Your task to perform on an android device: View the shopping cart on amazon.com. Add "macbook air" to the cart on amazon.com, then select checkout. Image 0: 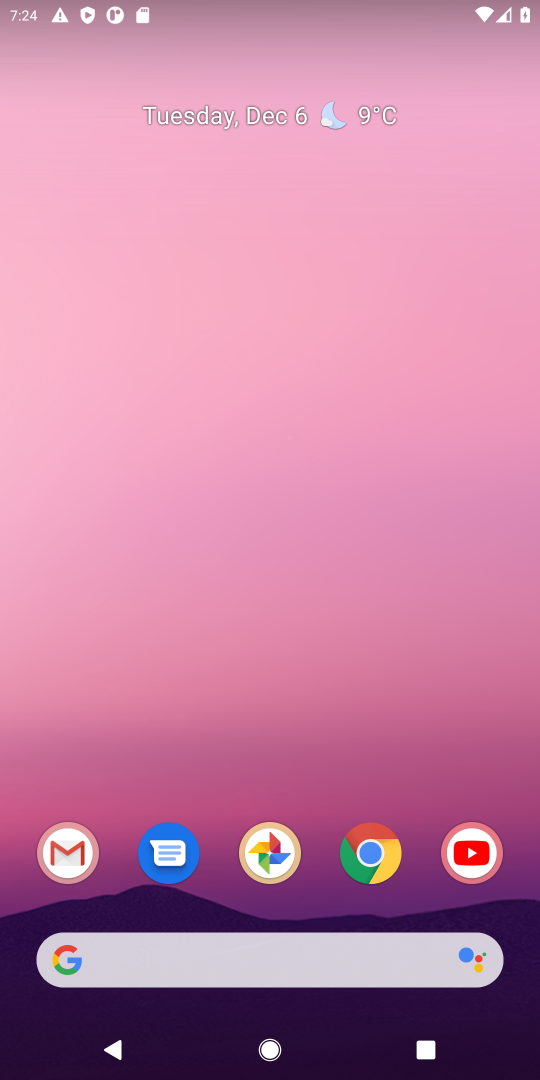
Step 0: click (374, 847)
Your task to perform on an android device: View the shopping cart on amazon.com. Add "macbook air" to the cart on amazon.com, then select checkout. Image 1: 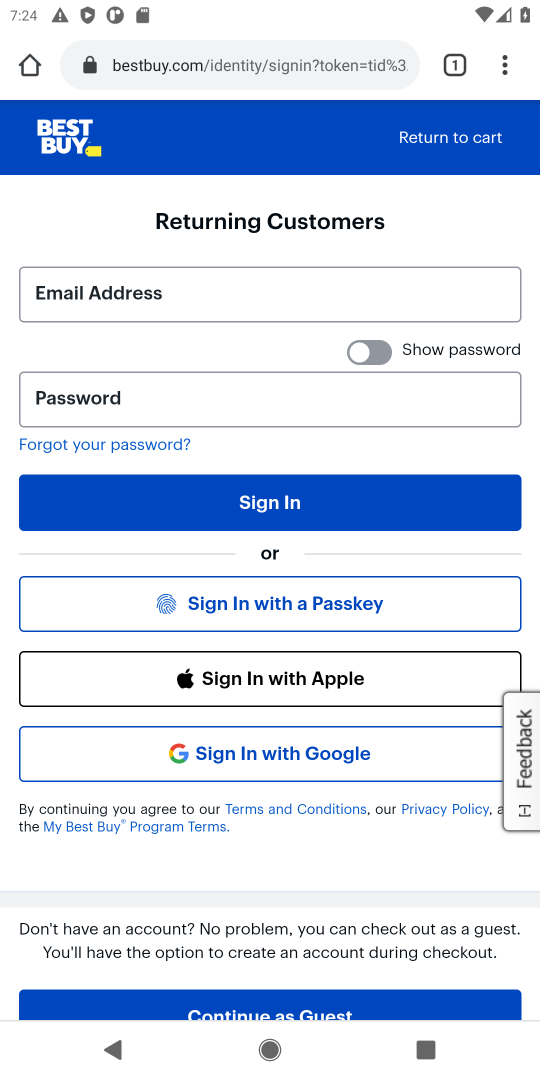
Step 1: click (261, 78)
Your task to perform on an android device: View the shopping cart on amazon.com. Add "macbook air" to the cart on amazon.com, then select checkout. Image 2: 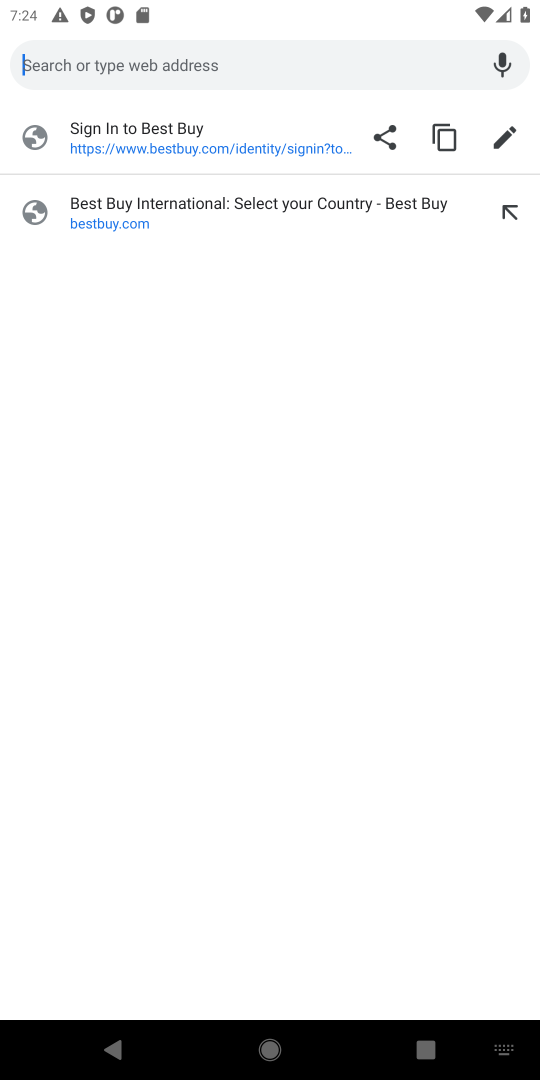
Step 2: click (245, 66)
Your task to perform on an android device: View the shopping cart on amazon.com. Add "macbook air" to the cart on amazon.com, then select checkout. Image 3: 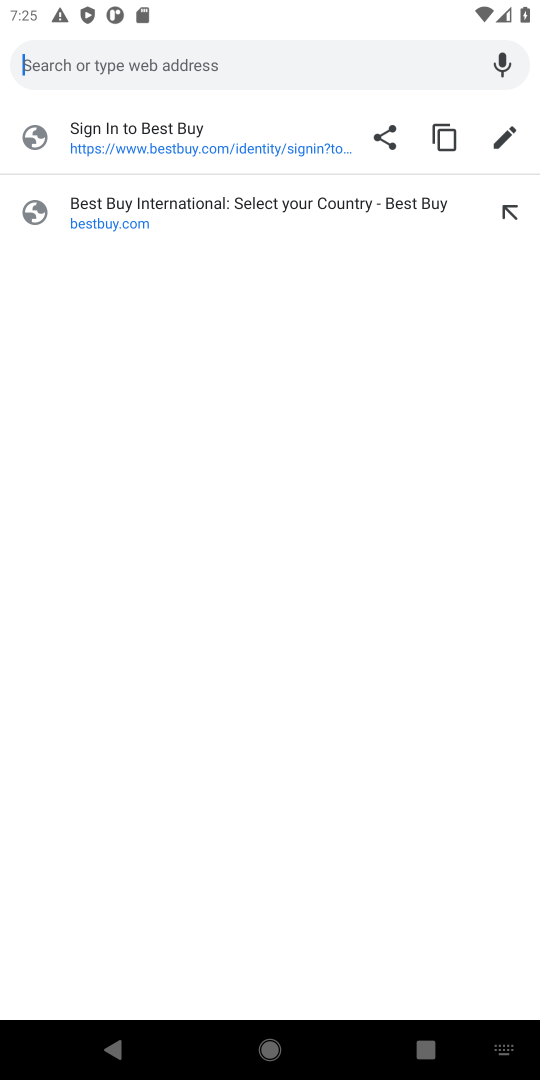
Step 3: type "amazon.cpm"
Your task to perform on an android device: View the shopping cart on amazon.com. Add "macbook air" to the cart on amazon.com, then select checkout. Image 4: 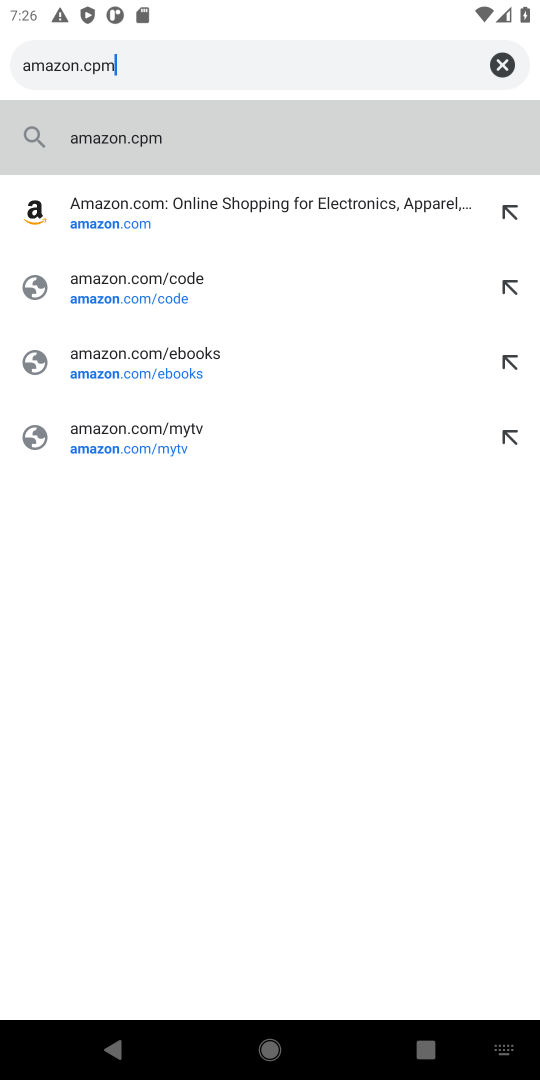
Step 4: click (199, 204)
Your task to perform on an android device: View the shopping cart on amazon.com. Add "macbook air" to the cart on amazon.com, then select checkout. Image 5: 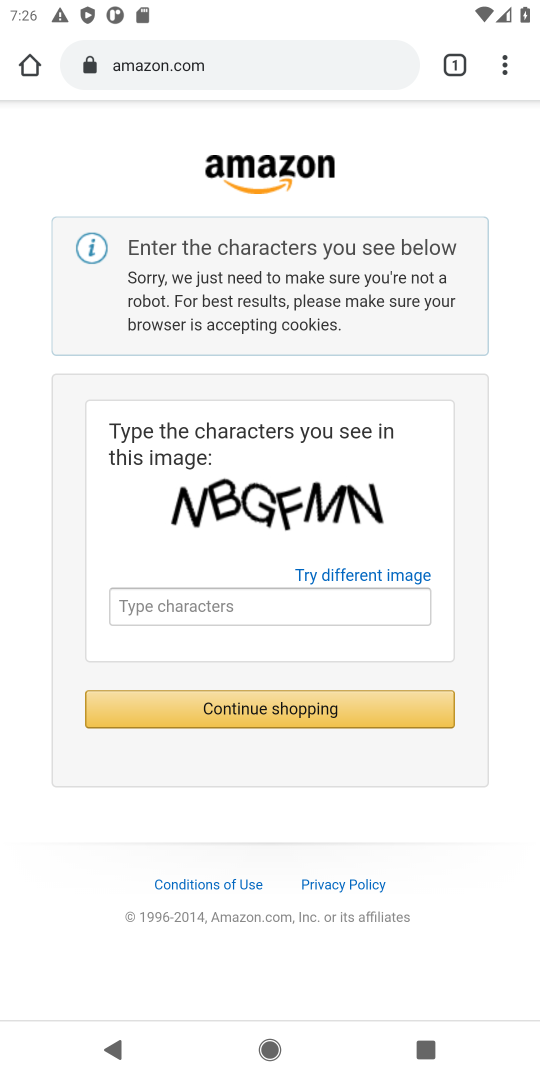
Step 5: click (266, 606)
Your task to perform on an android device: View the shopping cart on amazon.com. Add "macbook air" to the cart on amazon.com, then select checkout. Image 6: 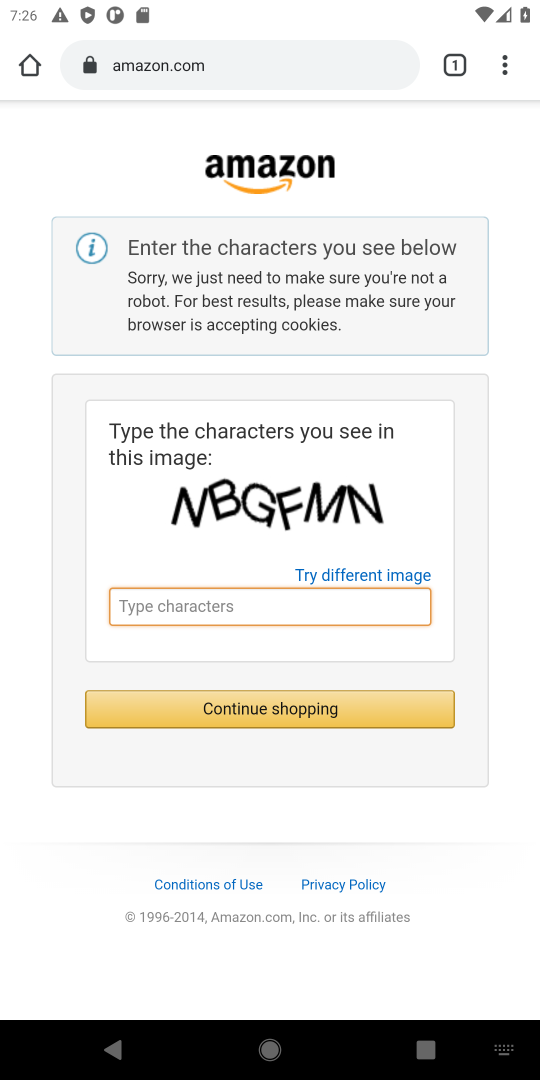
Step 6: click (230, 601)
Your task to perform on an android device: View the shopping cart on amazon.com. Add "macbook air" to the cart on amazon.com, then select checkout. Image 7: 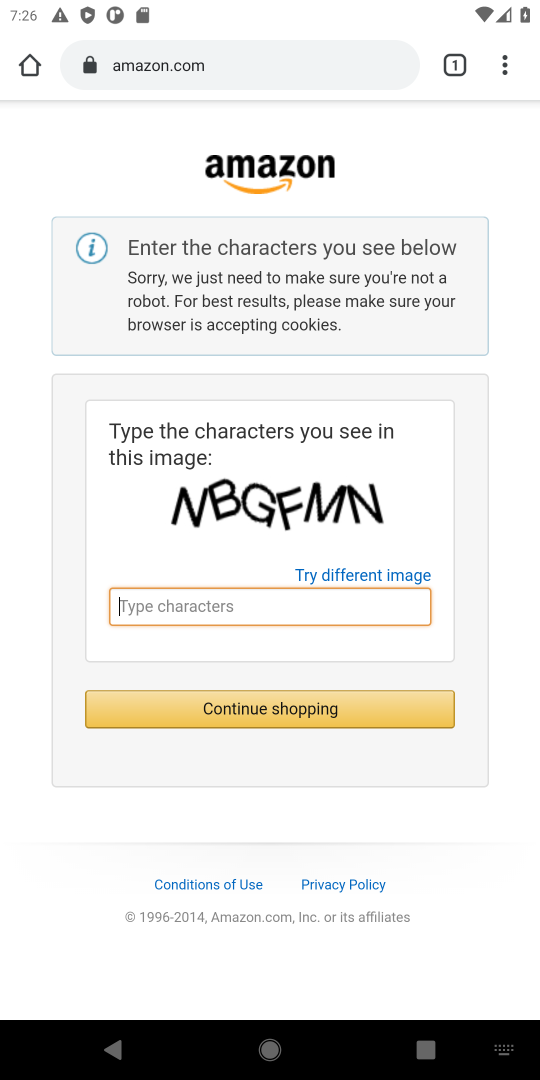
Step 7: click (230, 601)
Your task to perform on an android device: View the shopping cart on amazon.com. Add "macbook air" to the cart on amazon.com, then select checkout. Image 8: 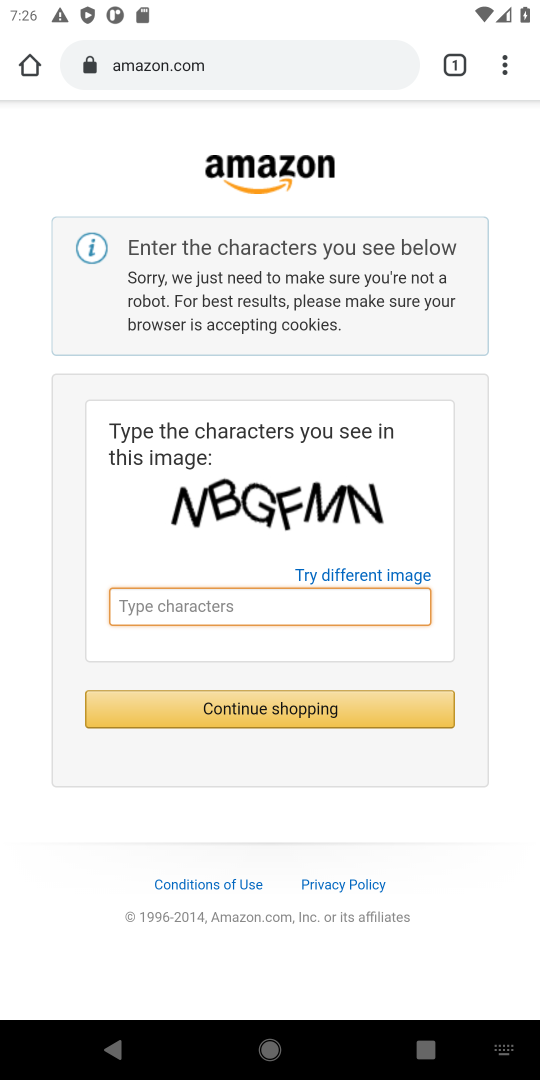
Step 8: type "NBGFMN"
Your task to perform on an android device: View the shopping cart on amazon.com. Add "macbook air" to the cart on amazon.com, then select checkout. Image 9: 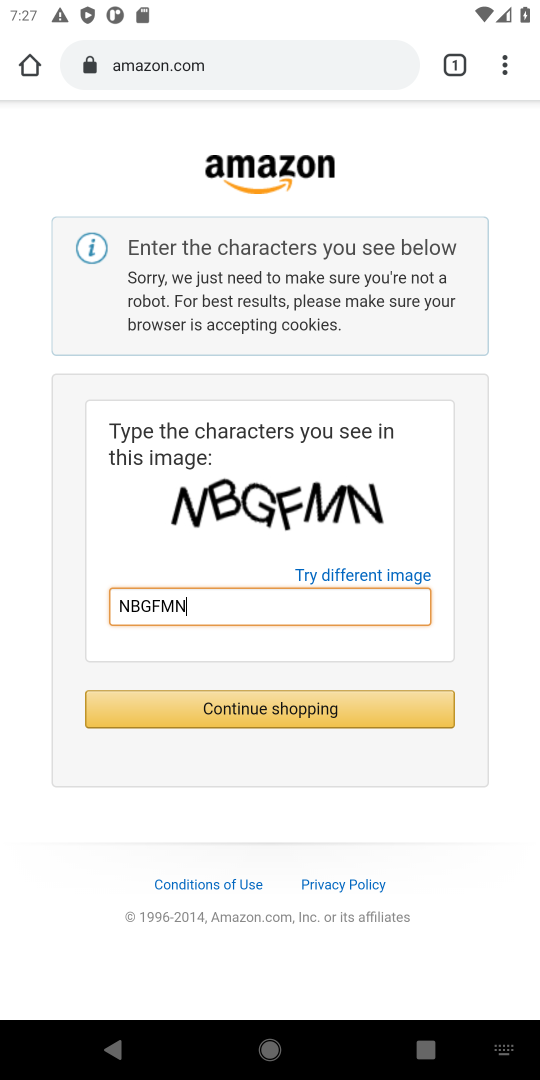
Step 9: click (314, 705)
Your task to perform on an android device: View the shopping cart on amazon.com. Add "macbook air" to the cart on amazon.com, then select checkout. Image 10: 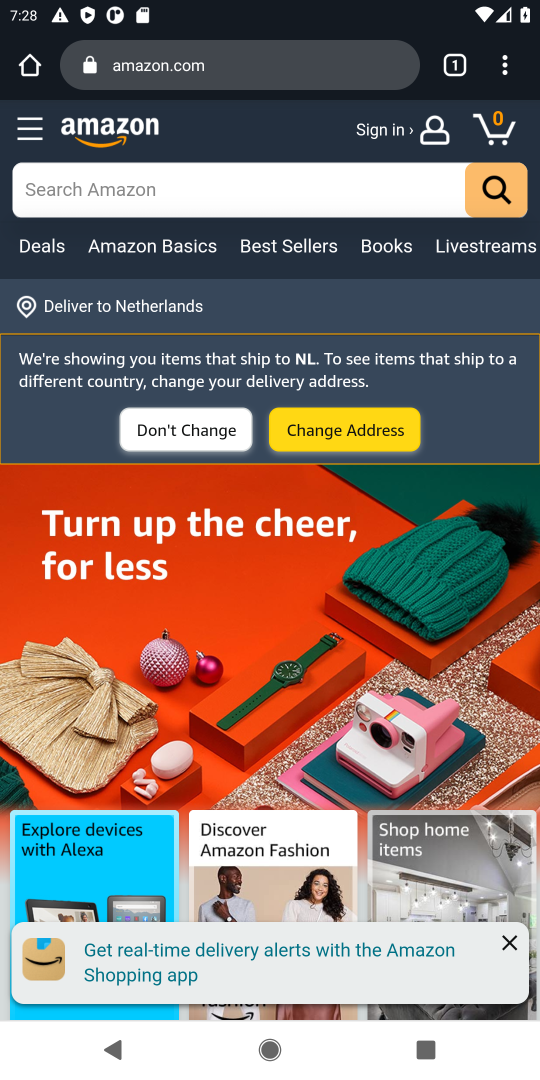
Step 10: click (343, 196)
Your task to perform on an android device: View the shopping cart on amazon.com. Add "macbook air" to the cart on amazon.com, then select checkout. Image 11: 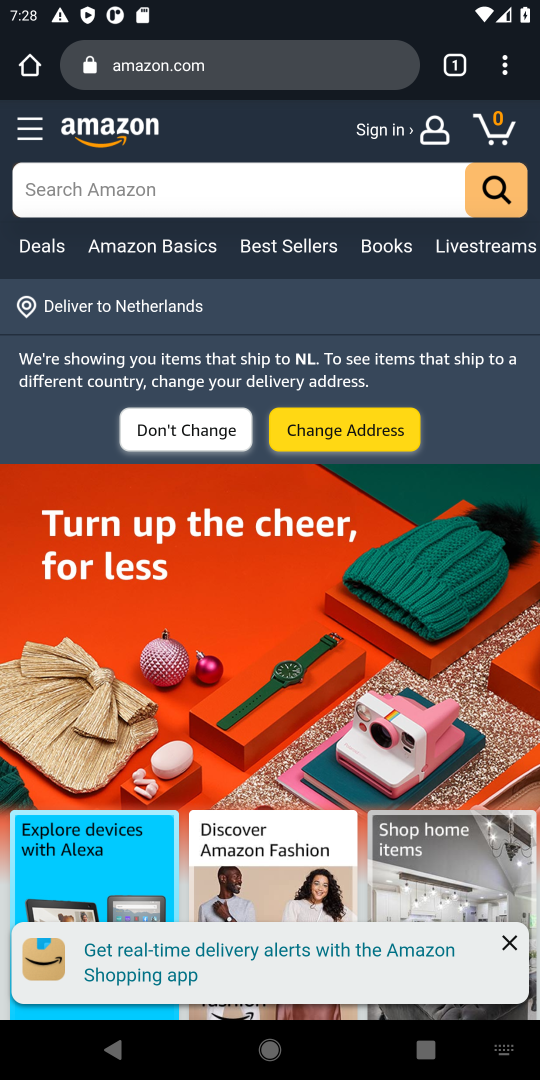
Step 11: type "macbook air"
Your task to perform on an android device: View the shopping cart on amazon.com. Add "macbook air" to the cart on amazon.com, then select checkout. Image 12: 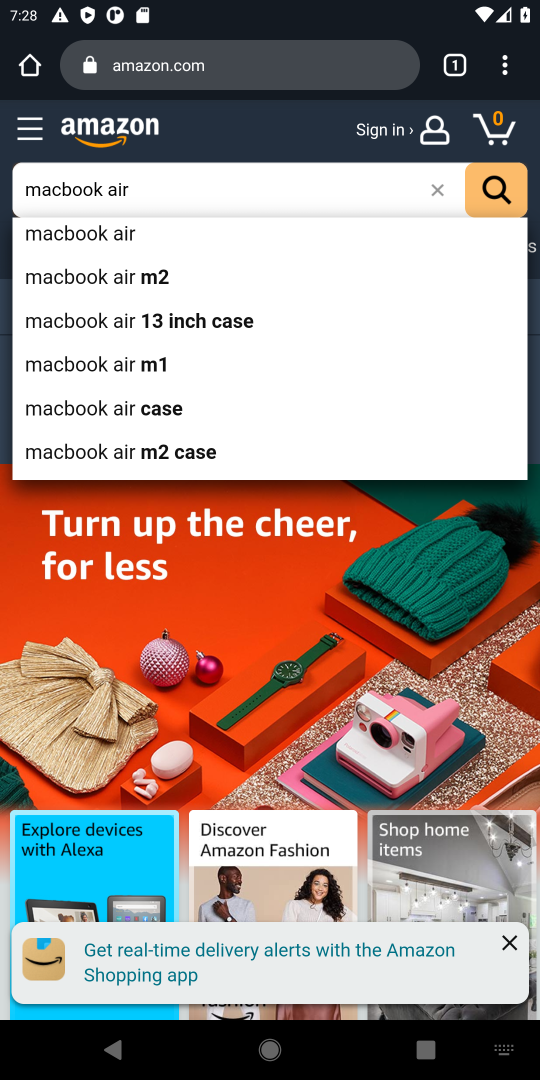
Step 12: click (141, 231)
Your task to perform on an android device: View the shopping cart on amazon.com. Add "macbook air" to the cart on amazon.com, then select checkout. Image 13: 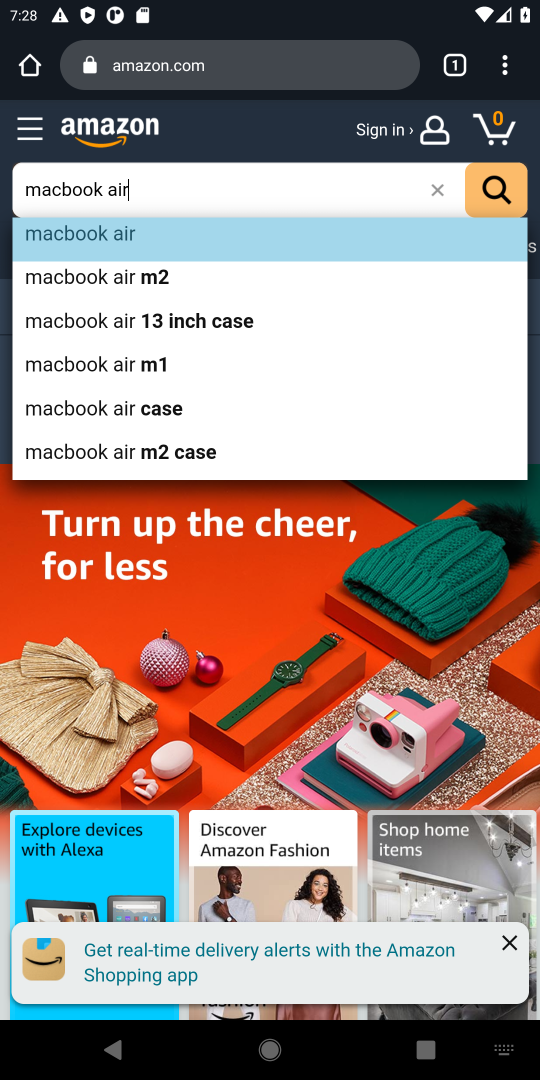
Step 13: click (141, 231)
Your task to perform on an android device: View the shopping cart on amazon.com. Add "macbook air" to the cart on amazon.com, then select checkout. Image 14: 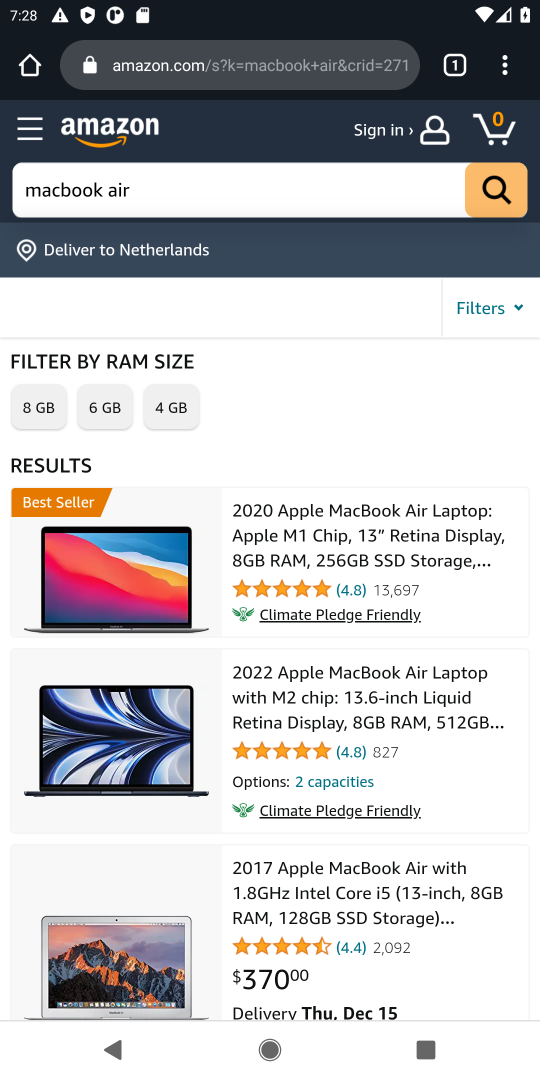
Step 14: click (171, 566)
Your task to perform on an android device: View the shopping cart on amazon.com. Add "macbook air" to the cart on amazon.com, then select checkout. Image 15: 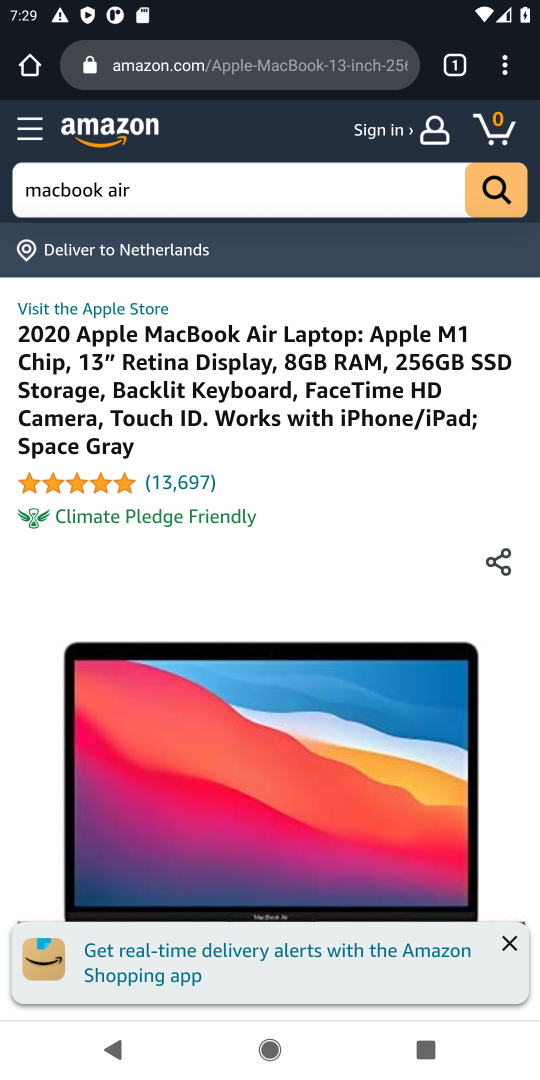
Step 15: task complete